Your task to perform on an android device: Go to privacy settings Image 0: 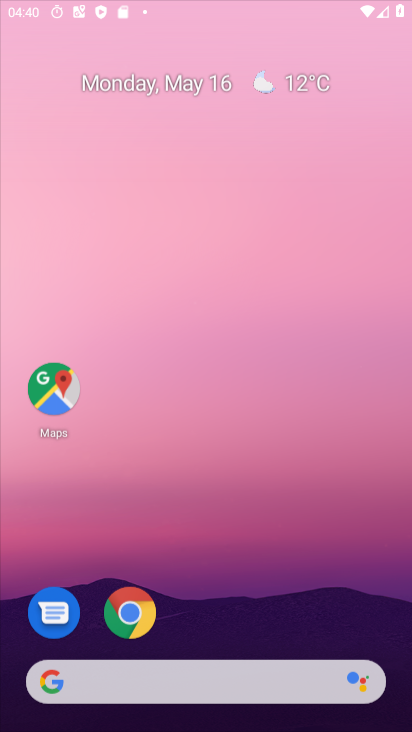
Step 0: click (143, 25)
Your task to perform on an android device: Go to privacy settings Image 1: 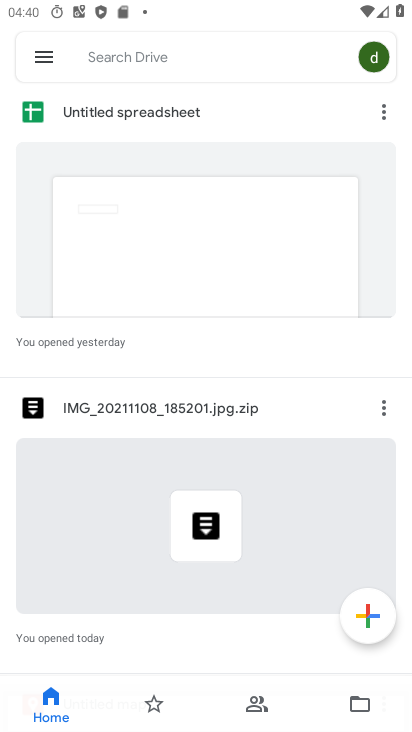
Step 1: press back button
Your task to perform on an android device: Go to privacy settings Image 2: 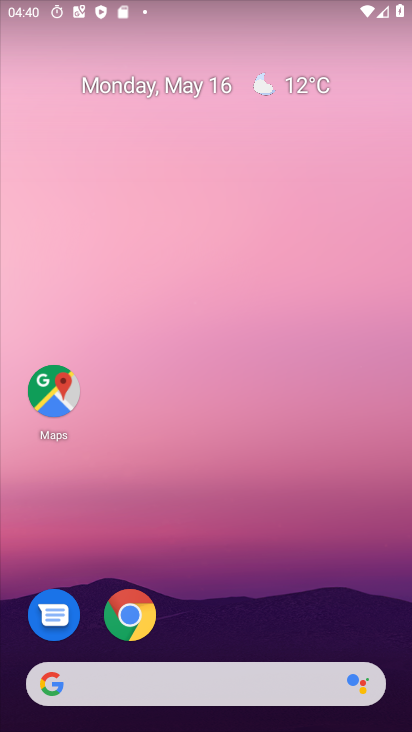
Step 2: drag from (229, 609) to (148, 35)
Your task to perform on an android device: Go to privacy settings Image 3: 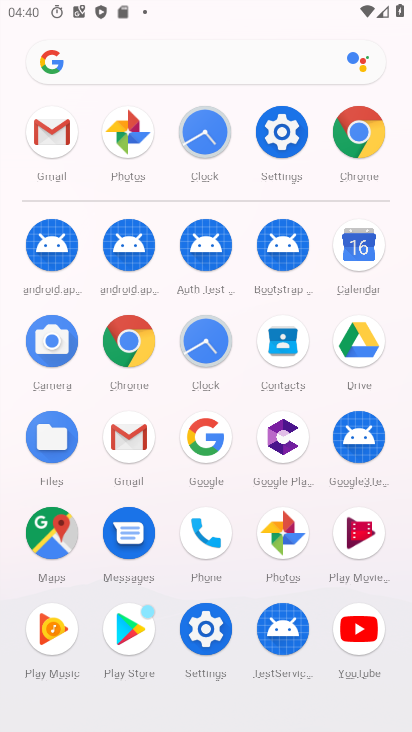
Step 3: click (280, 143)
Your task to perform on an android device: Go to privacy settings Image 4: 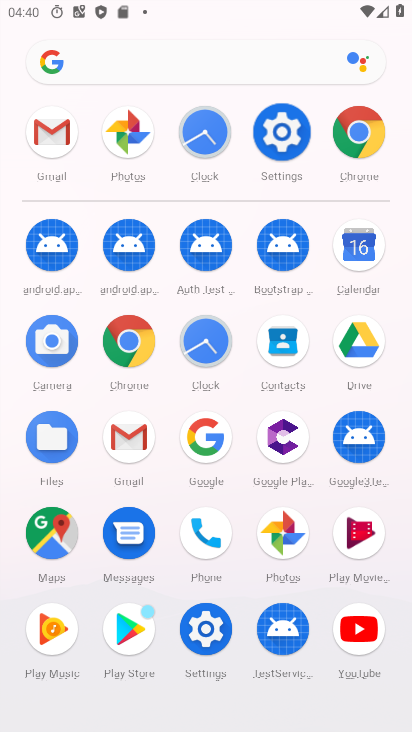
Step 4: click (277, 142)
Your task to perform on an android device: Go to privacy settings Image 5: 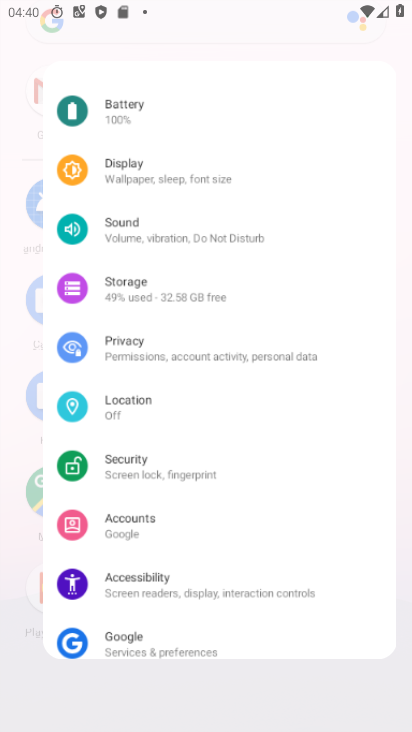
Step 5: click (277, 142)
Your task to perform on an android device: Go to privacy settings Image 6: 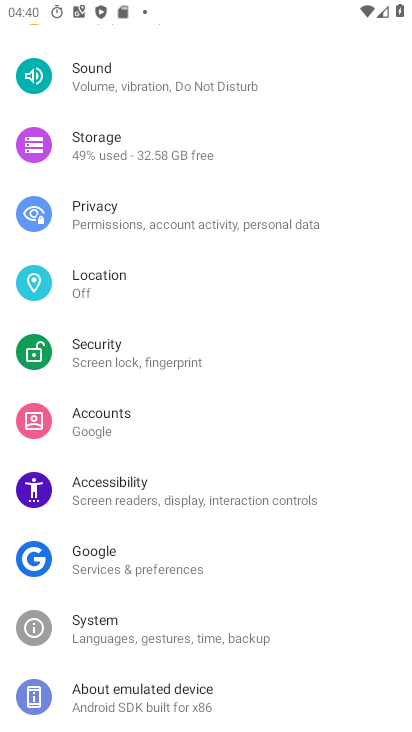
Step 6: click (277, 133)
Your task to perform on an android device: Go to privacy settings Image 7: 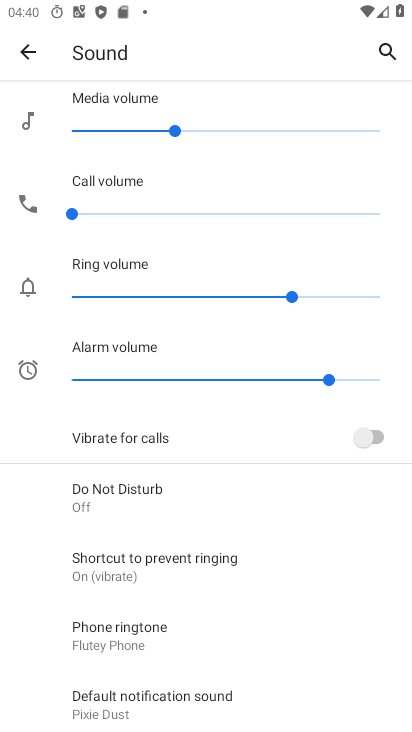
Step 7: click (19, 52)
Your task to perform on an android device: Go to privacy settings Image 8: 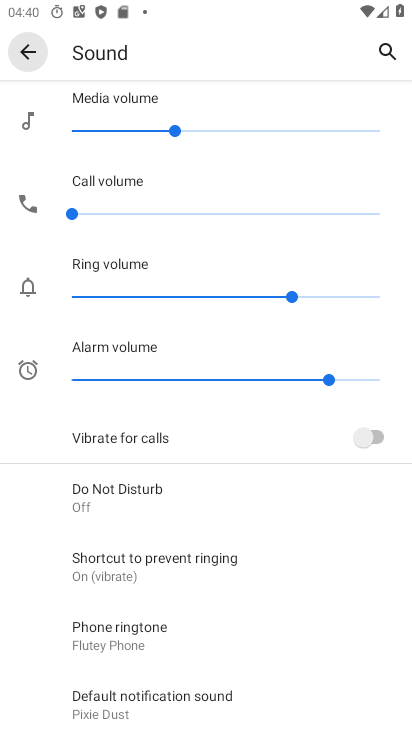
Step 8: click (21, 51)
Your task to perform on an android device: Go to privacy settings Image 9: 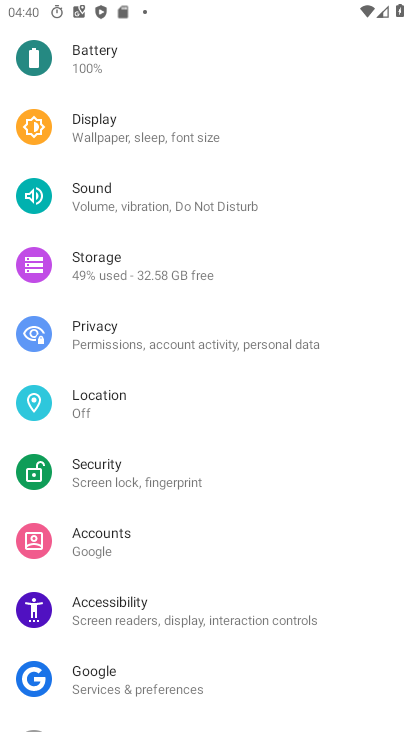
Step 9: click (112, 341)
Your task to perform on an android device: Go to privacy settings Image 10: 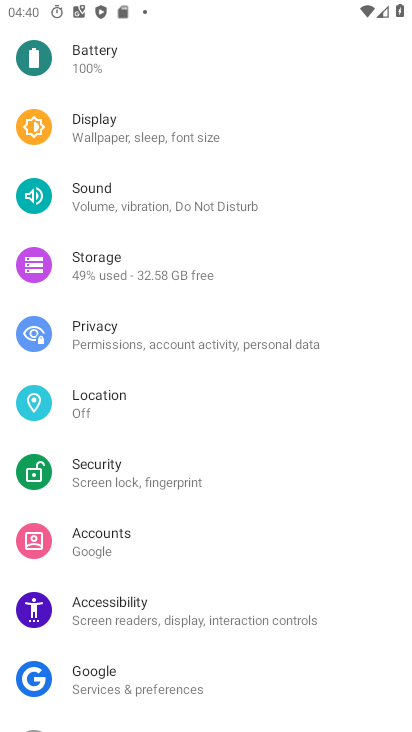
Step 10: click (109, 345)
Your task to perform on an android device: Go to privacy settings Image 11: 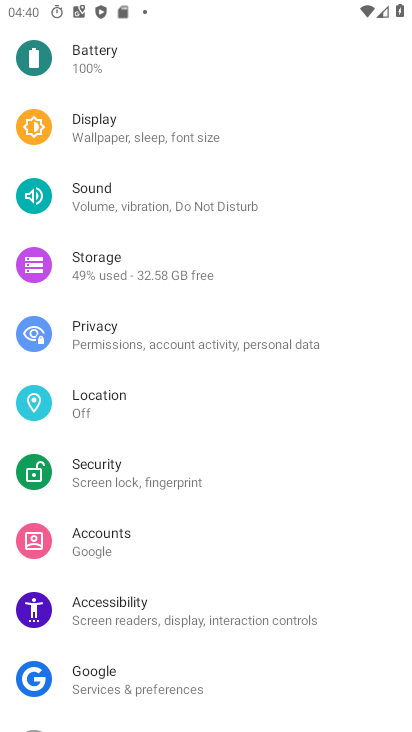
Step 11: click (110, 344)
Your task to perform on an android device: Go to privacy settings Image 12: 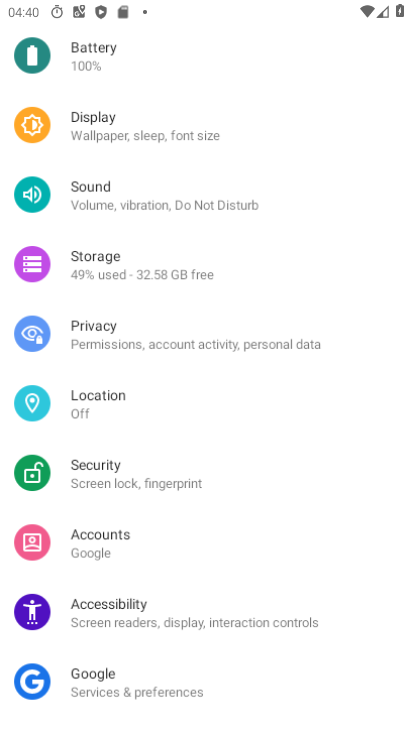
Step 12: click (111, 347)
Your task to perform on an android device: Go to privacy settings Image 13: 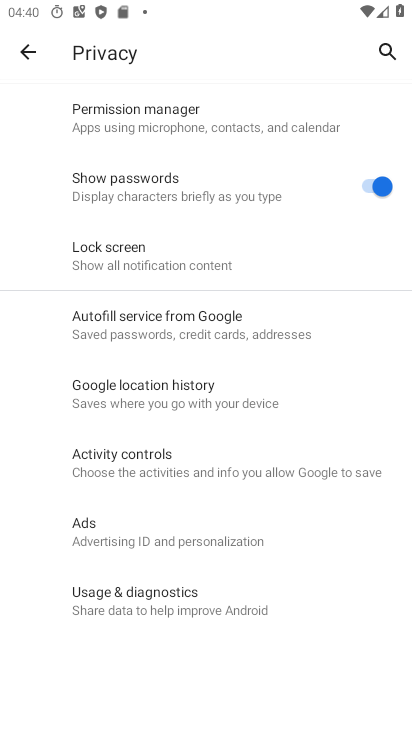
Step 13: click (107, 334)
Your task to perform on an android device: Go to privacy settings Image 14: 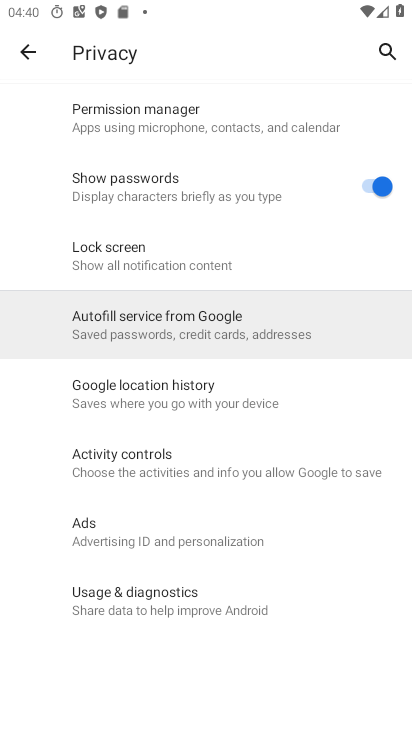
Step 14: click (121, 332)
Your task to perform on an android device: Go to privacy settings Image 15: 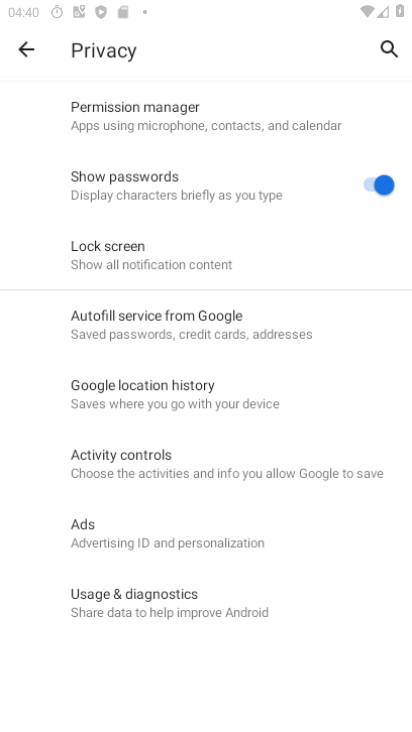
Step 15: click (120, 348)
Your task to perform on an android device: Go to privacy settings Image 16: 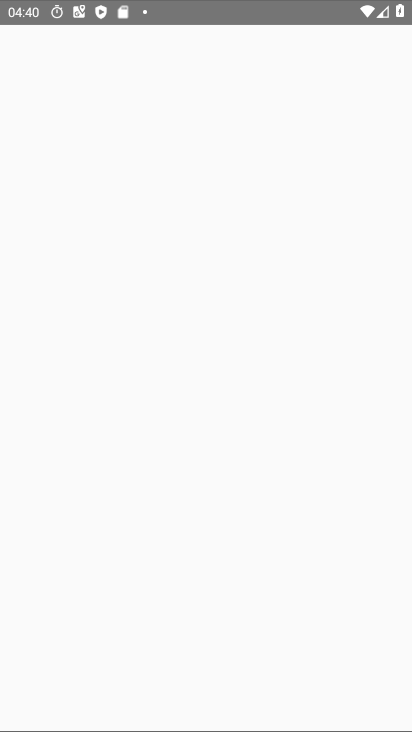
Step 16: click (119, 347)
Your task to perform on an android device: Go to privacy settings Image 17: 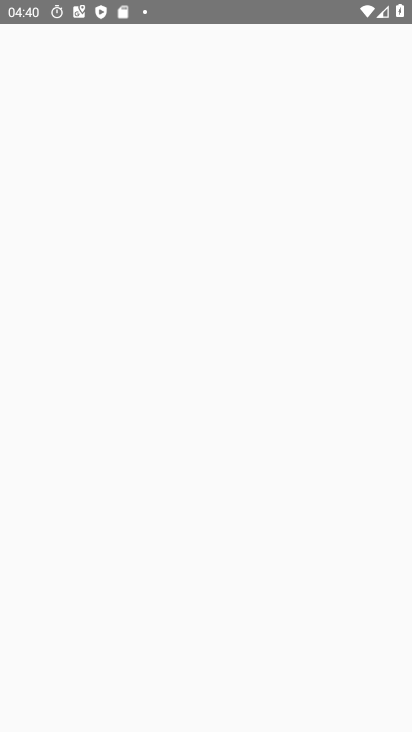
Step 17: click (125, 324)
Your task to perform on an android device: Go to privacy settings Image 18: 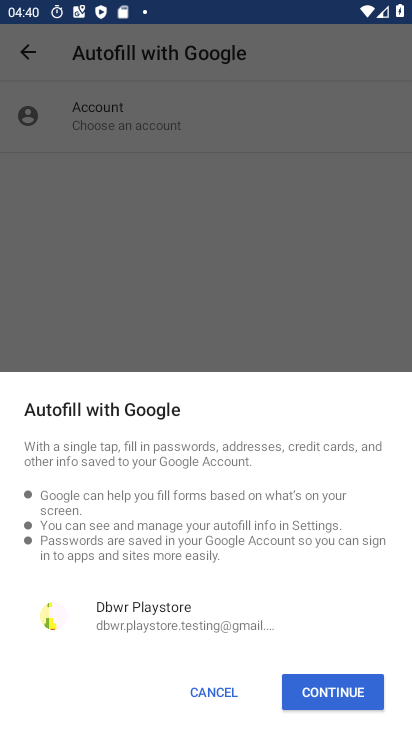
Step 18: click (29, 47)
Your task to perform on an android device: Go to privacy settings Image 19: 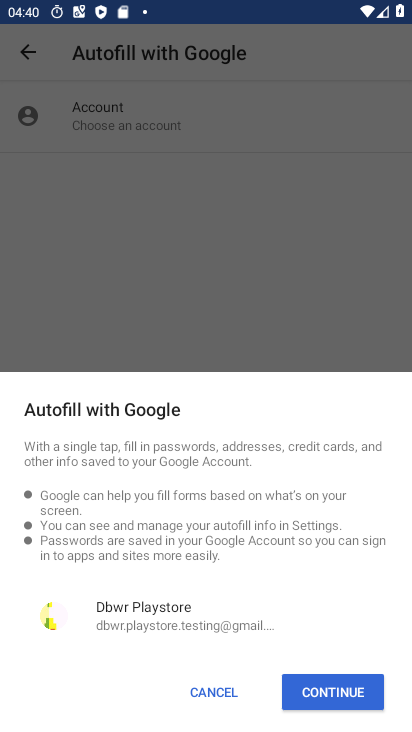
Step 19: click (30, 47)
Your task to perform on an android device: Go to privacy settings Image 20: 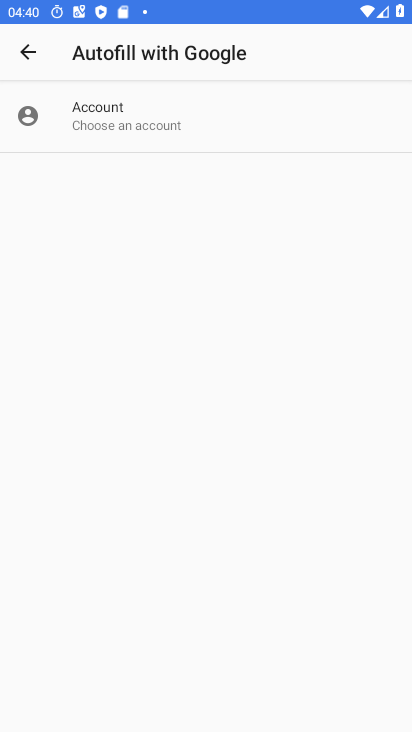
Step 20: click (30, 51)
Your task to perform on an android device: Go to privacy settings Image 21: 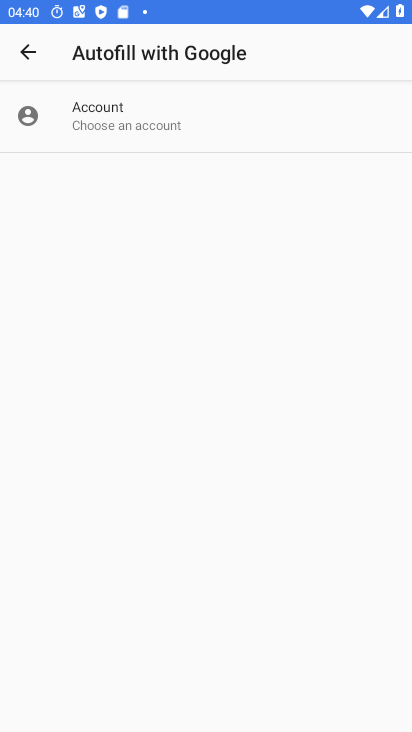
Step 21: click (25, 51)
Your task to perform on an android device: Go to privacy settings Image 22: 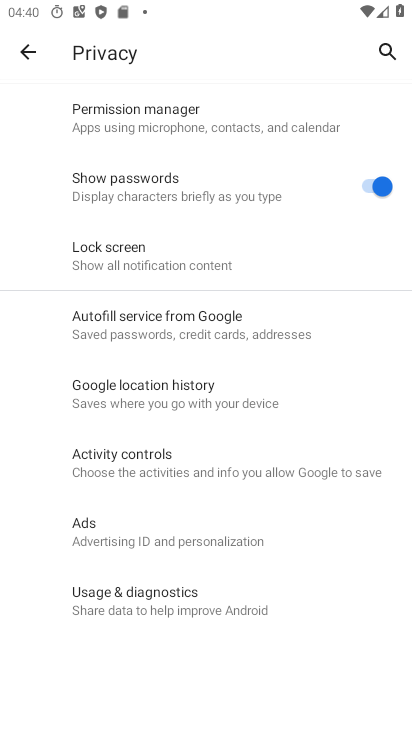
Step 22: click (28, 48)
Your task to perform on an android device: Go to privacy settings Image 23: 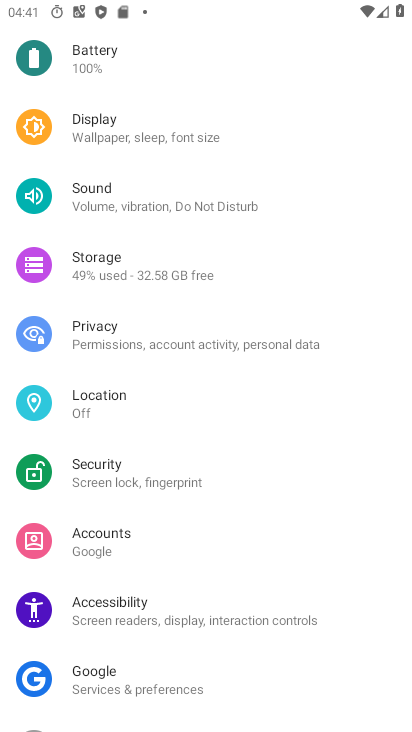
Step 23: click (92, 332)
Your task to perform on an android device: Go to privacy settings Image 24: 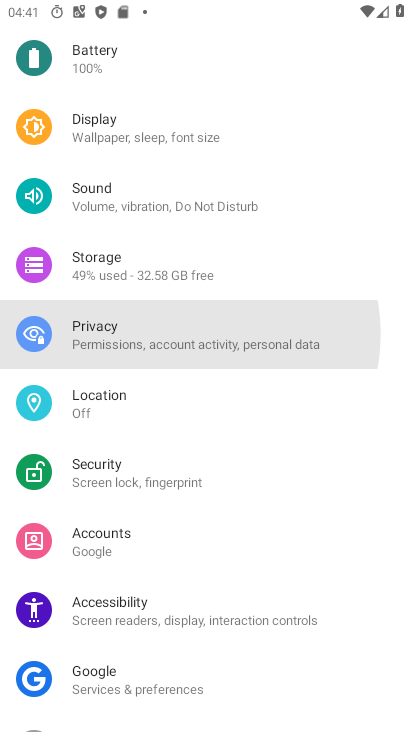
Step 24: click (91, 331)
Your task to perform on an android device: Go to privacy settings Image 25: 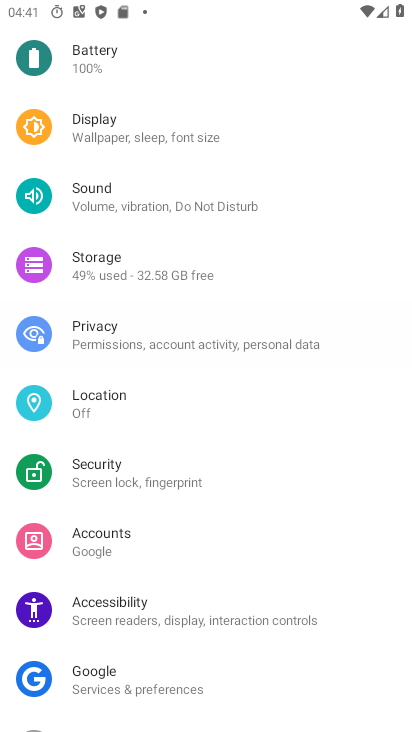
Step 25: click (91, 331)
Your task to perform on an android device: Go to privacy settings Image 26: 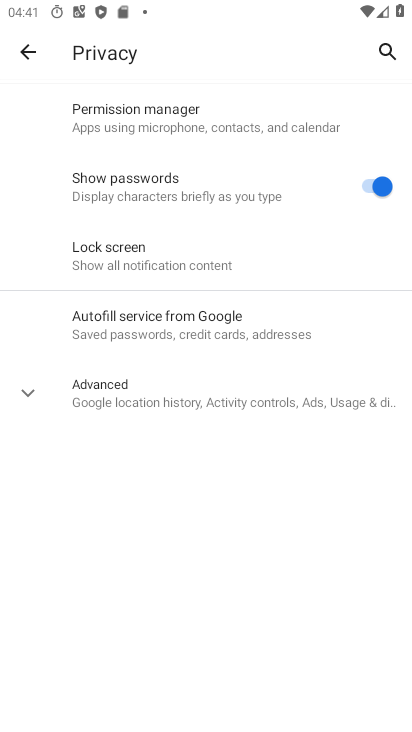
Step 26: task complete